Your task to perform on an android device: Find coffee shops on Maps Image 0: 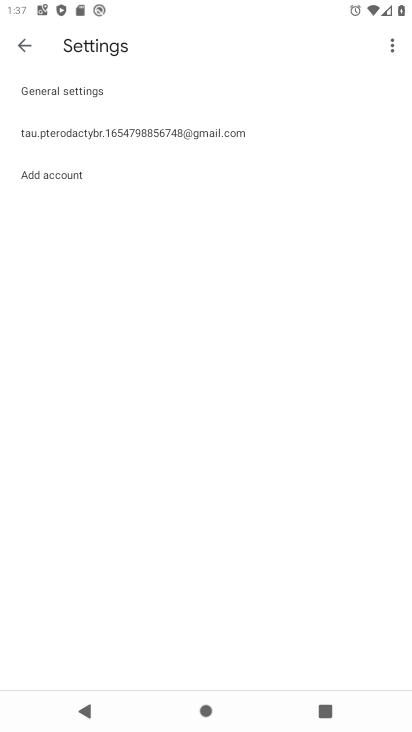
Step 0: press home button
Your task to perform on an android device: Find coffee shops on Maps Image 1: 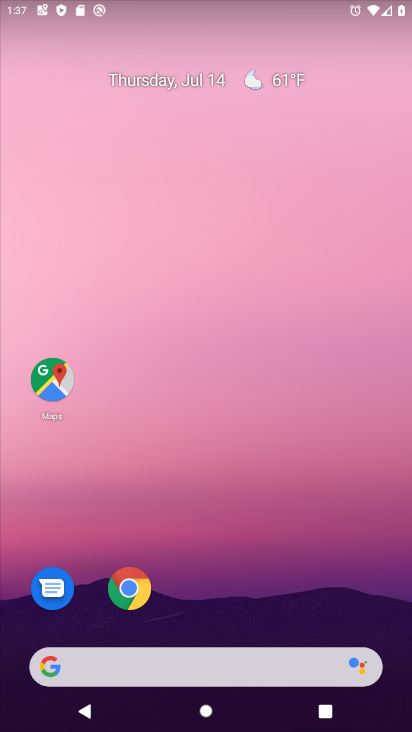
Step 1: drag from (189, 631) to (191, 281)
Your task to perform on an android device: Find coffee shops on Maps Image 2: 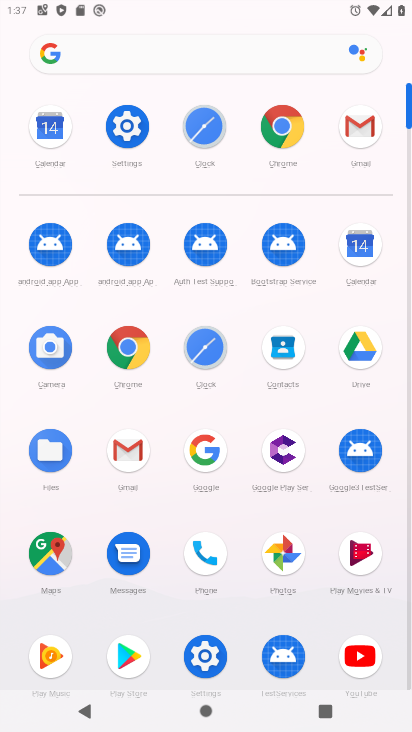
Step 2: click (50, 548)
Your task to perform on an android device: Find coffee shops on Maps Image 3: 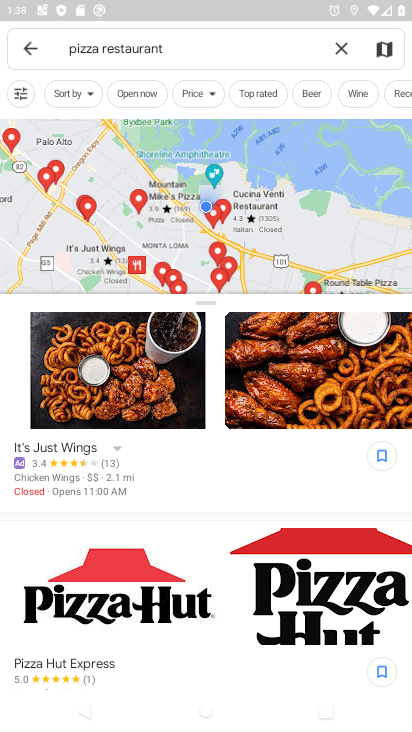
Step 3: click (341, 47)
Your task to perform on an android device: Find coffee shops on Maps Image 4: 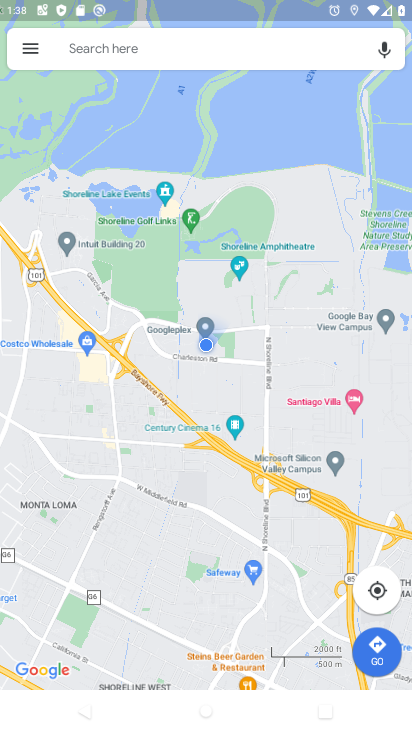
Step 4: click (147, 41)
Your task to perform on an android device: Find coffee shops on Maps Image 5: 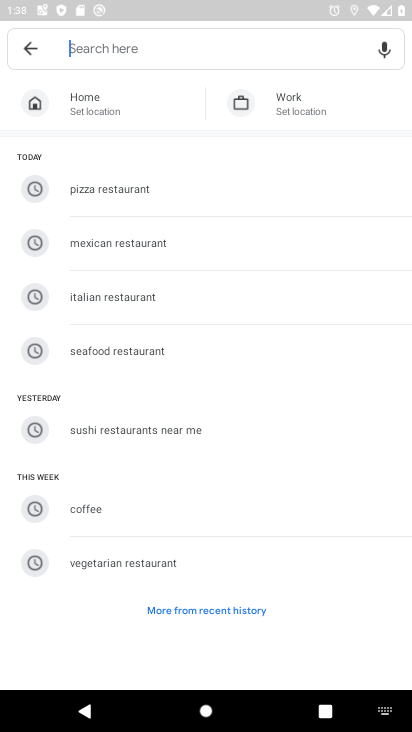
Step 5: click (80, 509)
Your task to perform on an android device: Find coffee shops on Maps Image 6: 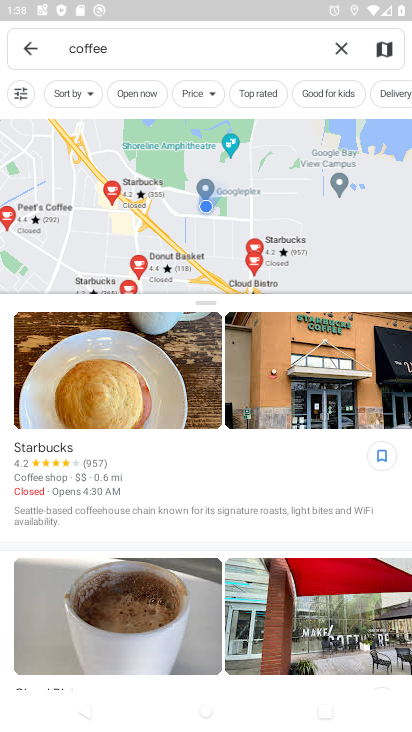
Step 6: task complete